Your task to perform on an android device: open device folders in google photos Image 0: 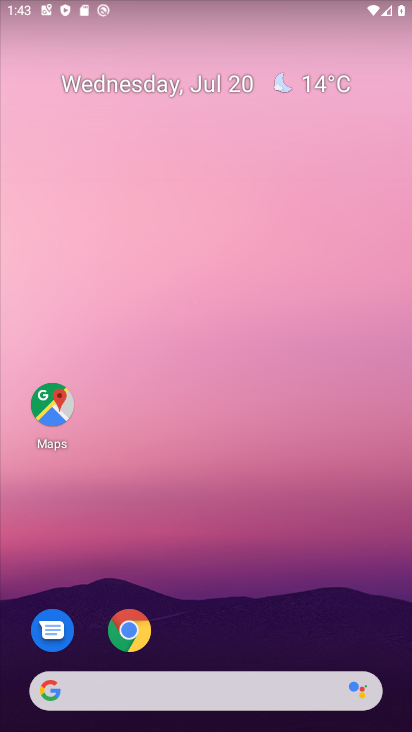
Step 0: drag from (242, 678) to (306, 220)
Your task to perform on an android device: open device folders in google photos Image 1: 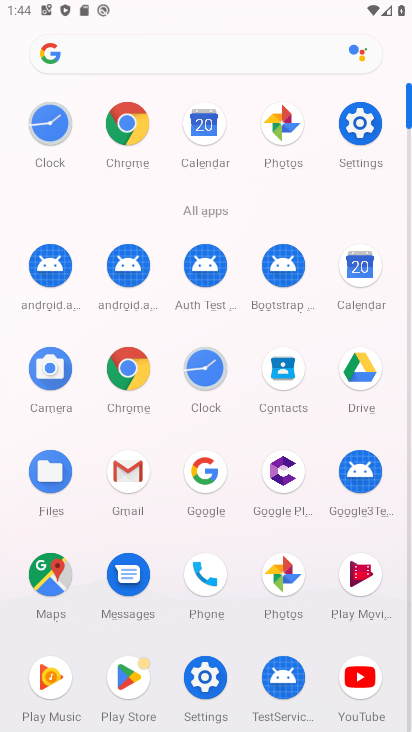
Step 1: click (279, 578)
Your task to perform on an android device: open device folders in google photos Image 2: 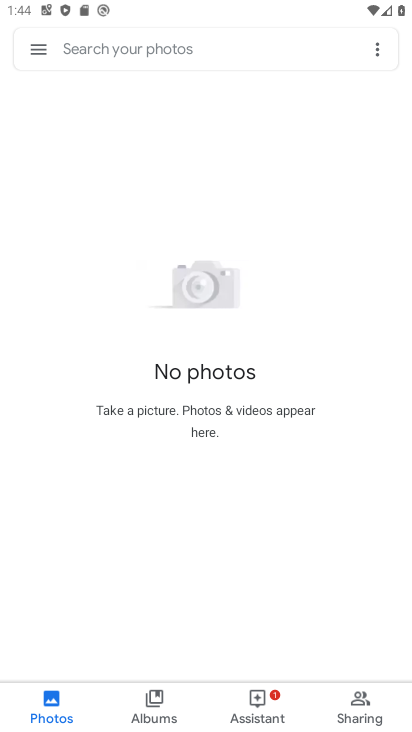
Step 2: task complete